Your task to perform on an android device: change the clock display to analog Image 0: 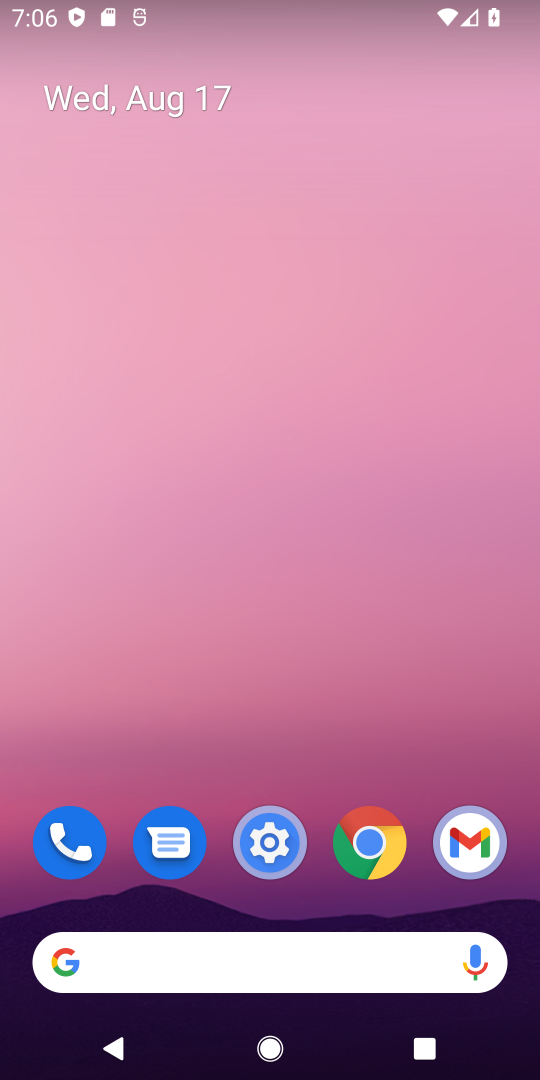
Step 0: drag from (311, 698) to (280, 0)
Your task to perform on an android device: change the clock display to analog Image 1: 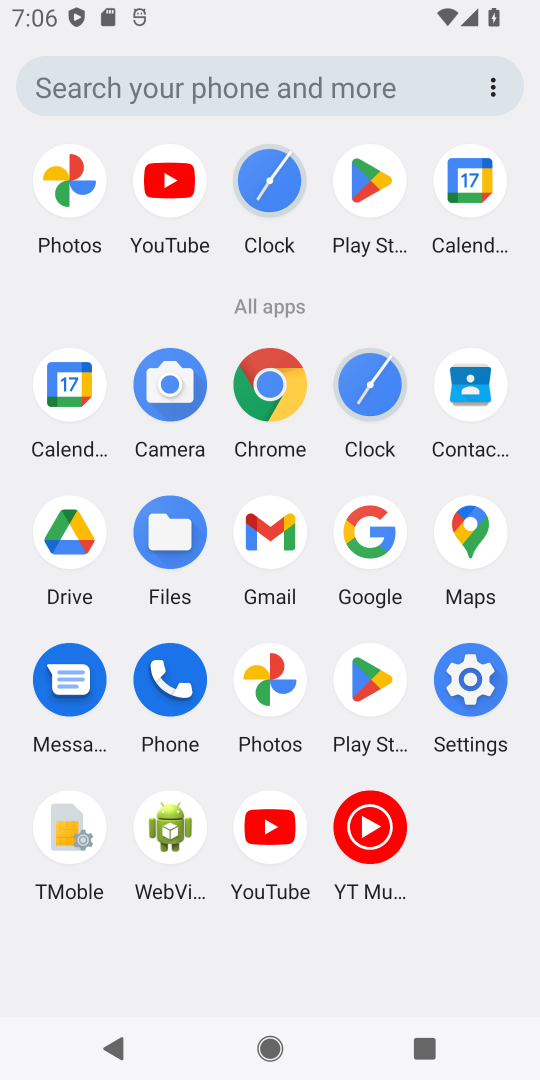
Step 1: click (271, 166)
Your task to perform on an android device: change the clock display to analog Image 2: 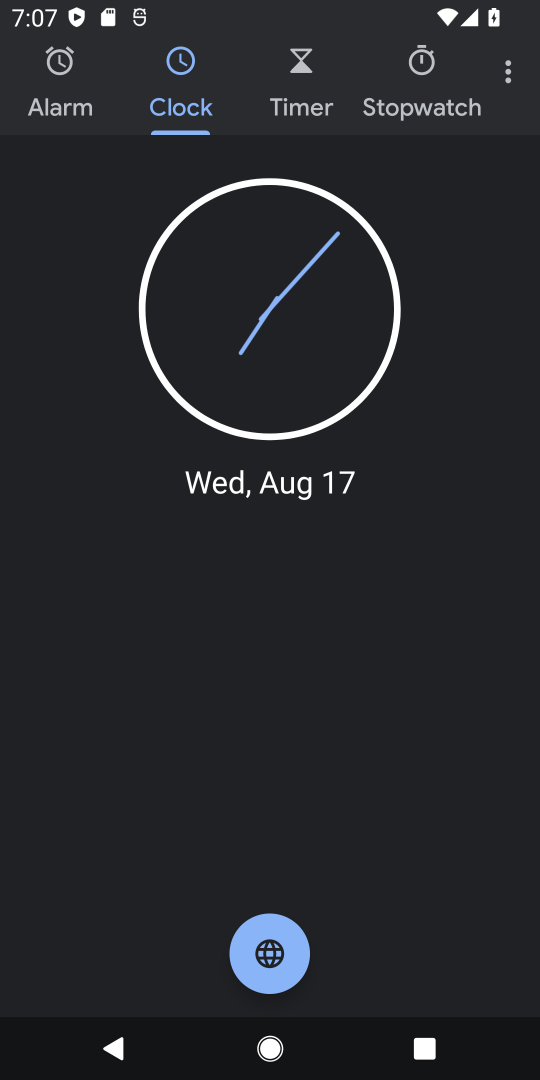
Step 2: task complete